Your task to perform on an android device: turn on bluetooth scan Image 0: 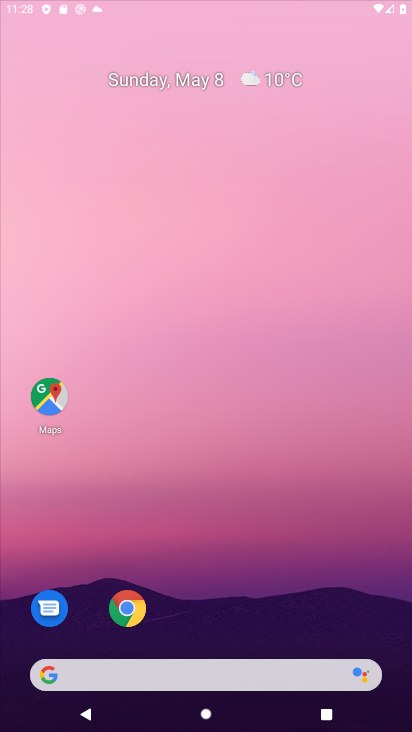
Step 0: drag from (248, 90) to (291, 198)
Your task to perform on an android device: turn on bluetooth scan Image 1: 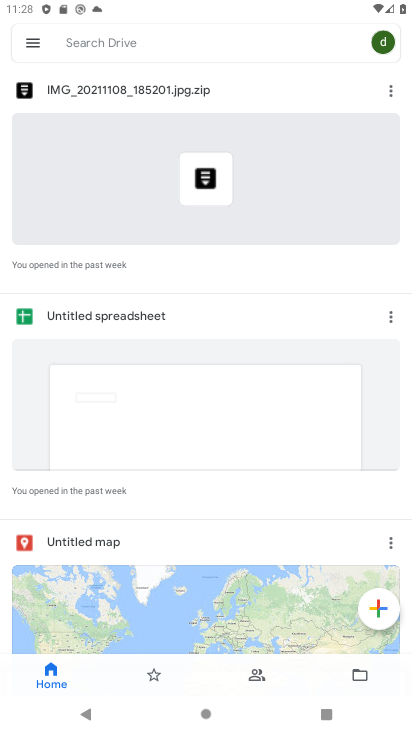
Step 1: press home button
Your task to perform on an android device: turn on bluetooth scan Image 2: 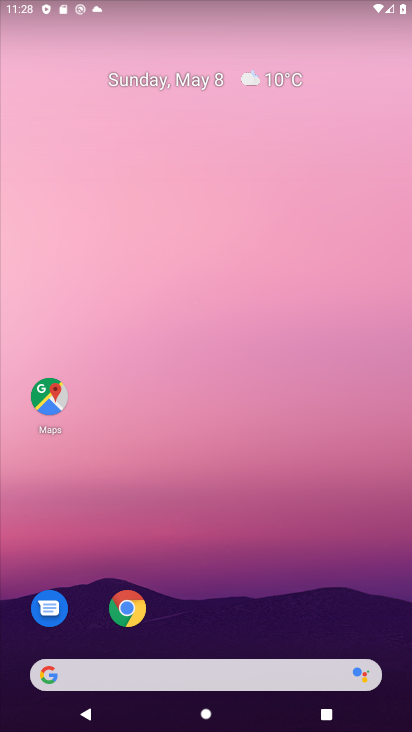
Step 2: drag from (257, 571) to (262, 242)
Your task to perform on an android device: turn on bluetooth scan Image 3: 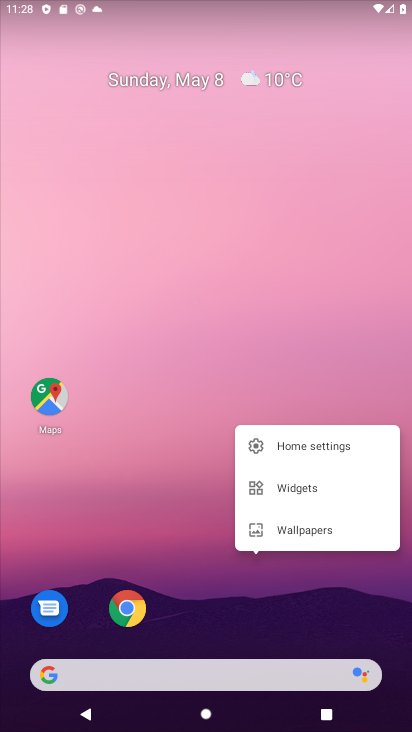
Step 3: click (123, 485)
Your task to perform on an android device: turn on bluetooth scan Image 4: 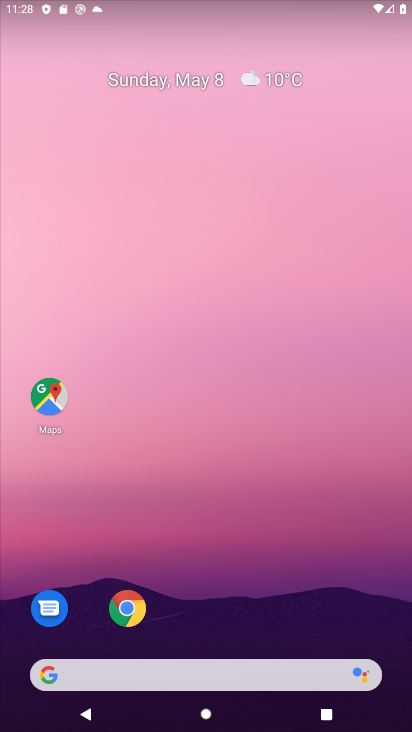
Step 4: drag from (197, 607) to (232, 281)
Your task to perform on an android device: turn on bluetooth scan Image 5: 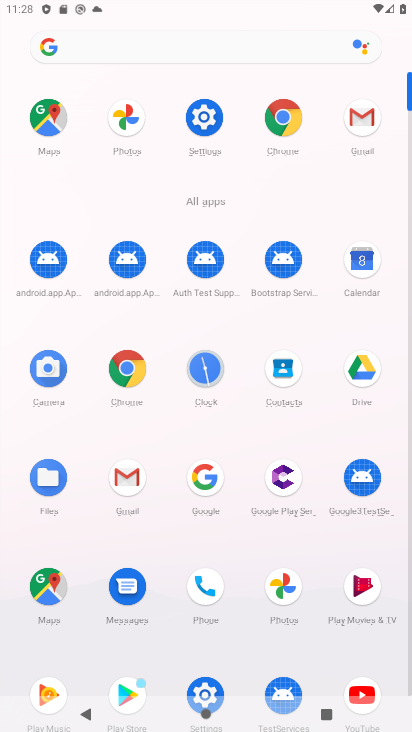
Step 5: click (210, 129)
Your task to perform on an android device: turn on bluetooth scan Image 6: 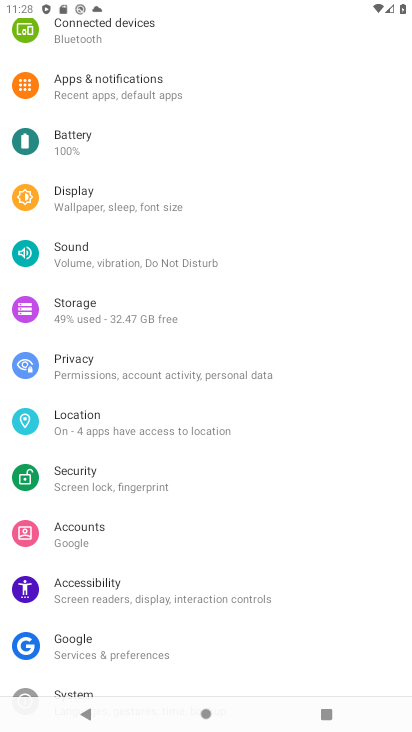
Step 6: drag from (211, 602) to (215, 417)
Your task to perform on an android device: turn on bluetooth scan Image 7: 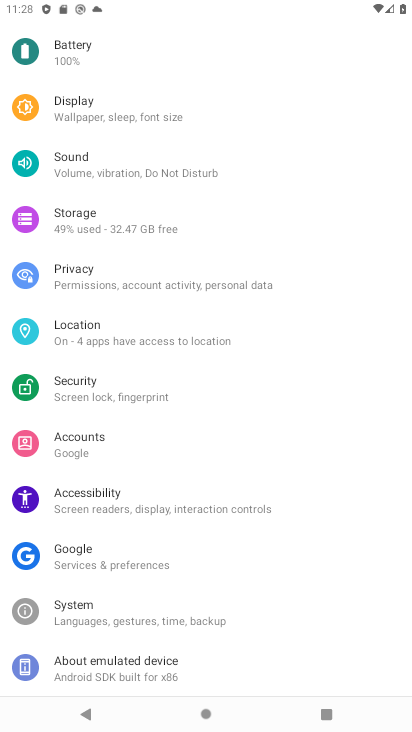
Step 7: click (175, 330)
Your task to perform on an android device: turn on bluetooth scan Image 8: 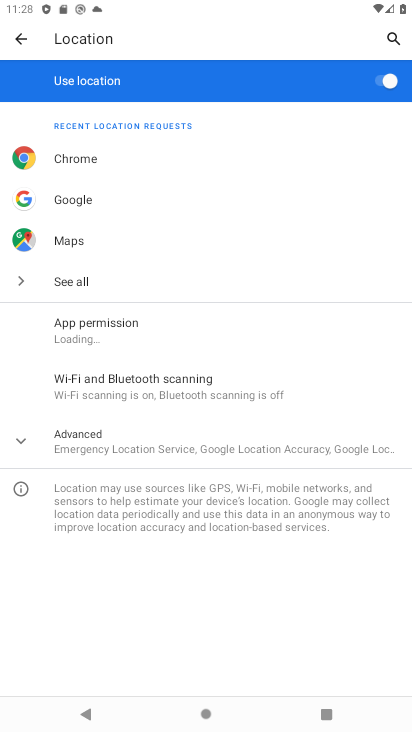
Step 8: click (184, 396)
Your task to perform on an android device: turn on bluetooth scan Image 9: 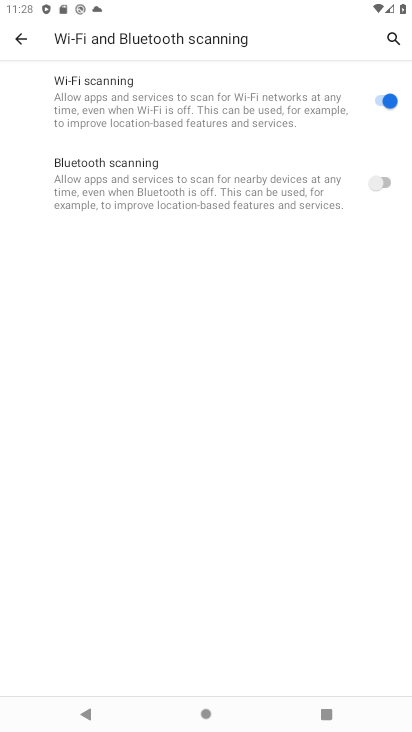
Step 9: click (376, 179)
Your task to perform on an android device: turn on bluetooth scan Image 10: 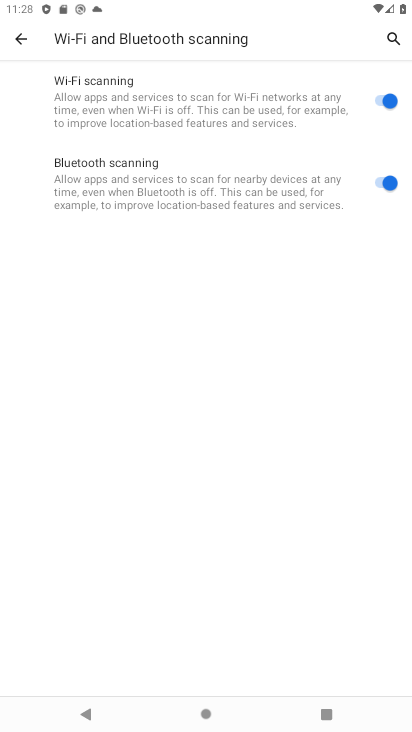
Step 10: task complete